Your task to perform on an android device: Show me popular games on the Play Store Image 0: 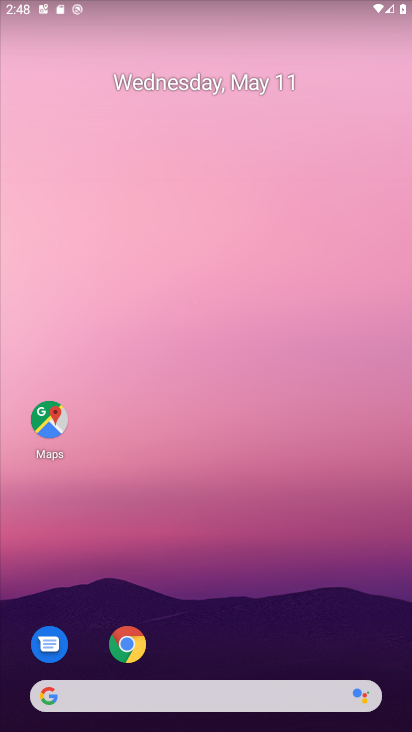
Step 0: drag from (202, 674) to (131, 9)
Your task to perform on an android device: Show me popular games on the Play Store Image 1: 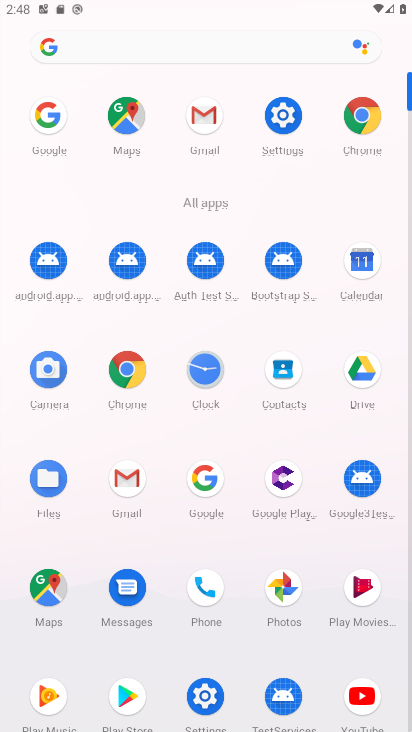
Step 1: click (130, 694)
Your task to perform on an android device: Show me popular games on the Play Store Image 2: 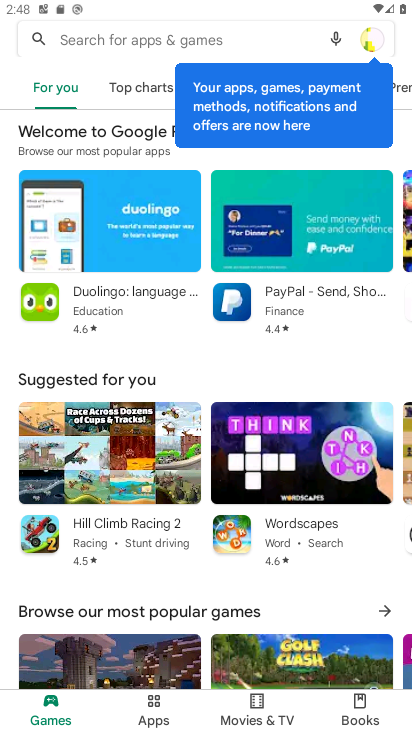
Step 2: click (377, 612)
Your task to perform on an android device: Show me popular games on the Play Store Image 3: 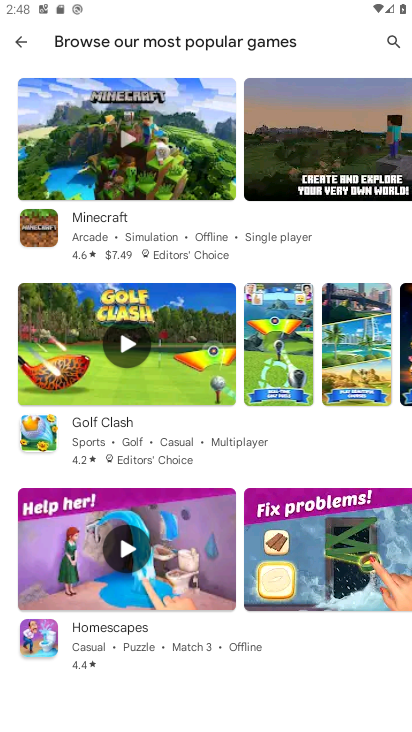
Step 3: task complete